Your task to perform on an android device: Open Google Image 0: 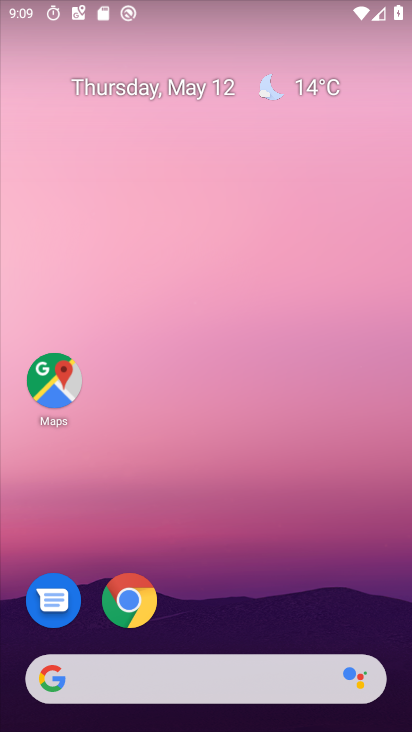
Step 0: drag from (303, 601) to (169, 15)
Your task to perform on an android device: Open Google Image 1: 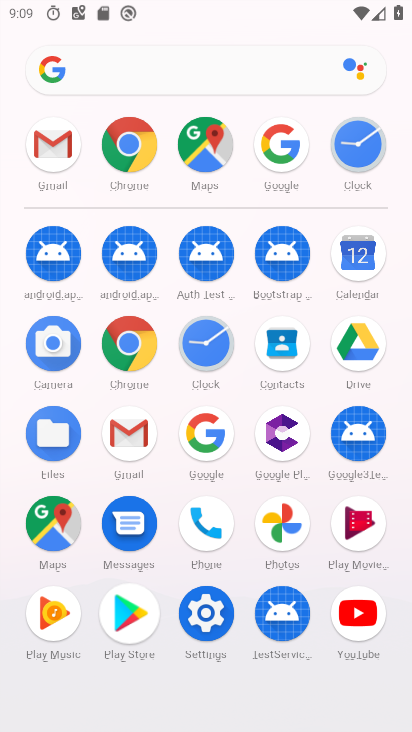
Step 1: click (211, 433)
Your task to perform on an android device: Open Google Image 2: 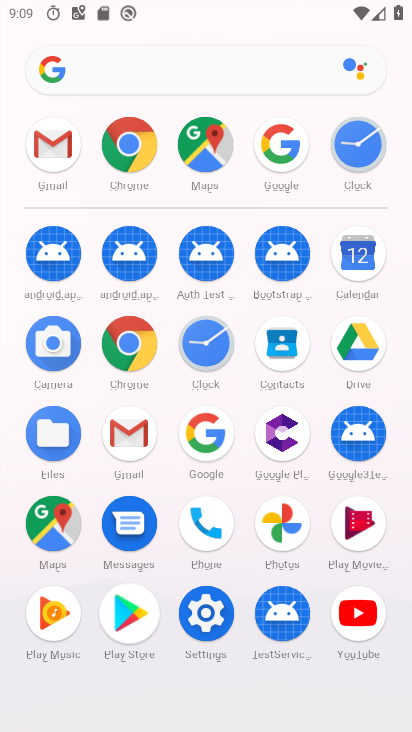
Step 2: click (211, 433)
Your task to perform on an android device: Open Google Image 3: 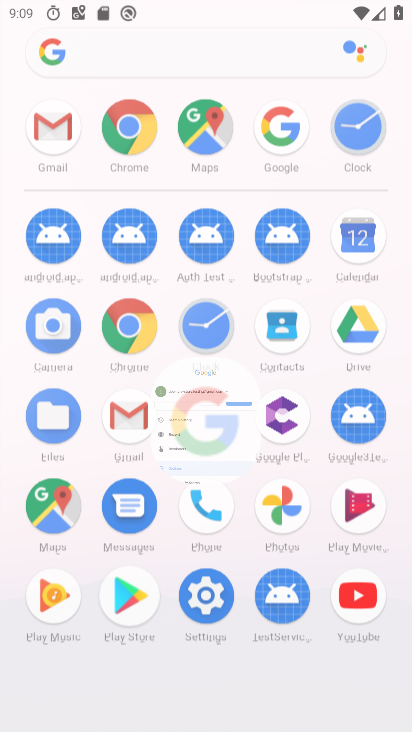
Step 3: click (211, 433)
Your task to perform on an android device: Open Google Image 4: 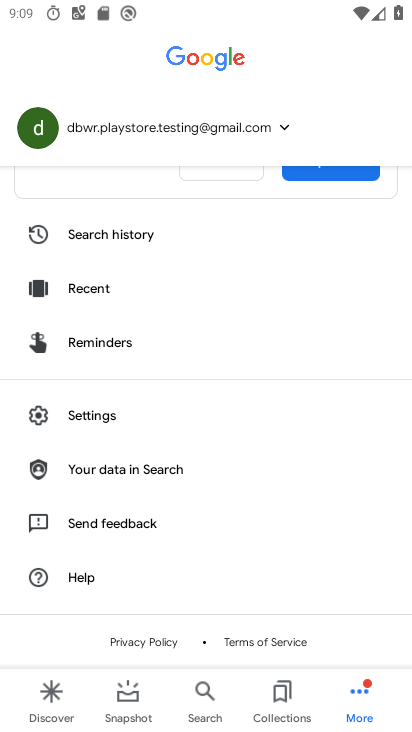
Step 4: task complete